Your task to perform on an android device: turn on improve location accuracy Image 0: 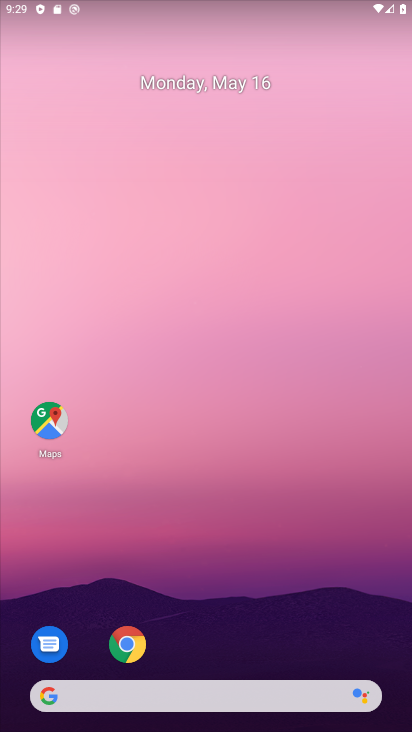
Step 0: drag from (110, 496) to (280, 109)
Your task to perform on an android device: turn on improve location accuracy Image 1: 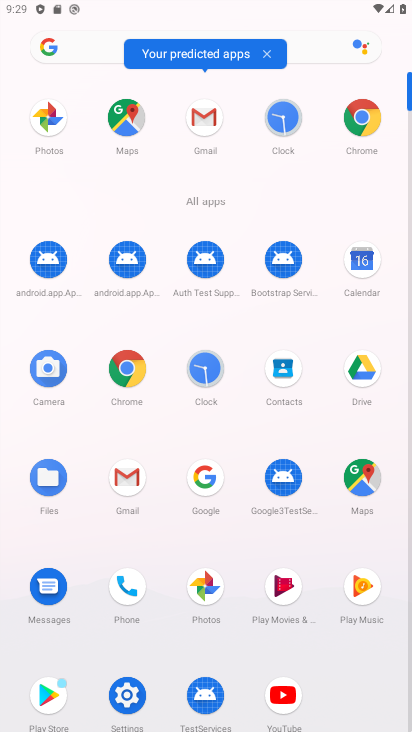
Step 1: click (122, 706)
Your task to perform on an android device: turn on improve location accuracy Image 2: 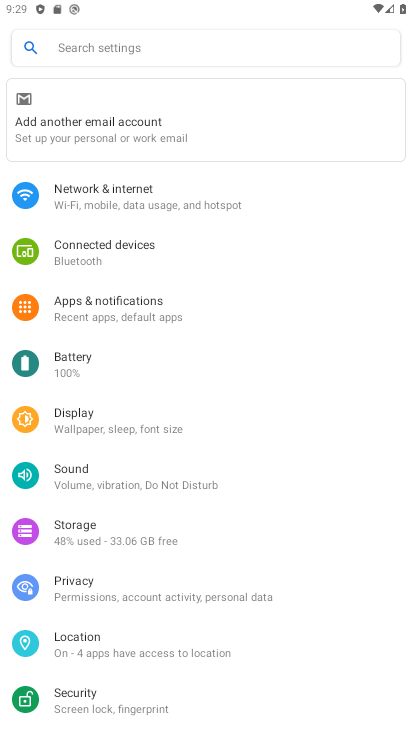
Step 2: click (122, 646)
Your task to perform on an android device: turn on improve location accuracy Image 3: 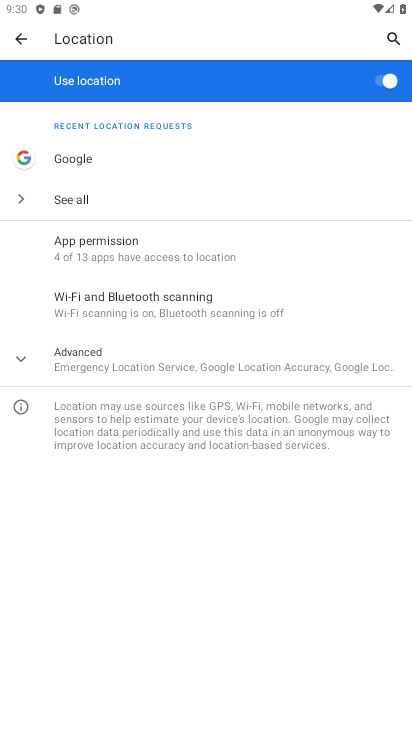
Step 3: click (78, 368)
Your task to perform on an android device: turn on improve location accuracy Image 4: 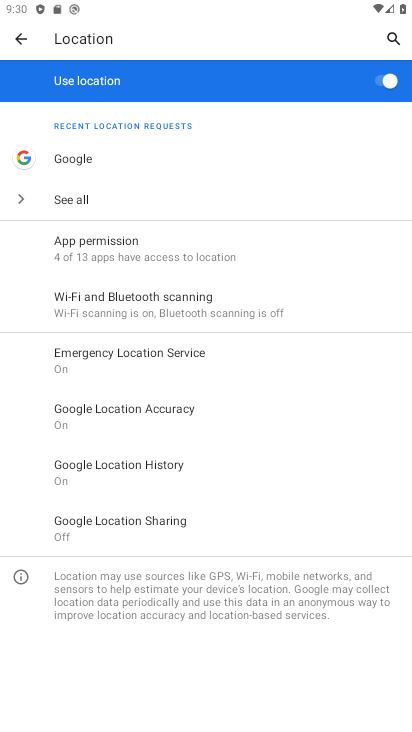
Step 4: click (125, 414)
Your task to perform on an android device: turn on improve location accuracy Image 5: 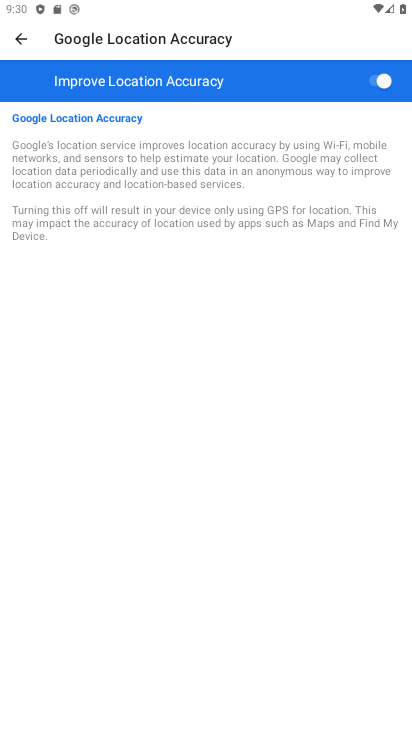
Step 5: task complete